Your task to perform on an android device: Open the Play Movies app and select the watchlist tab. Image 0: 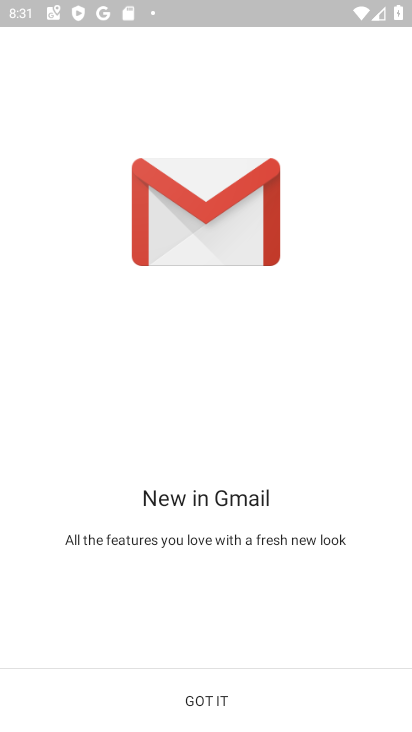
Step 0: press home button
Your task to perform on an android device: Open the Play Movies app and select the watchlist tab. Image 1: 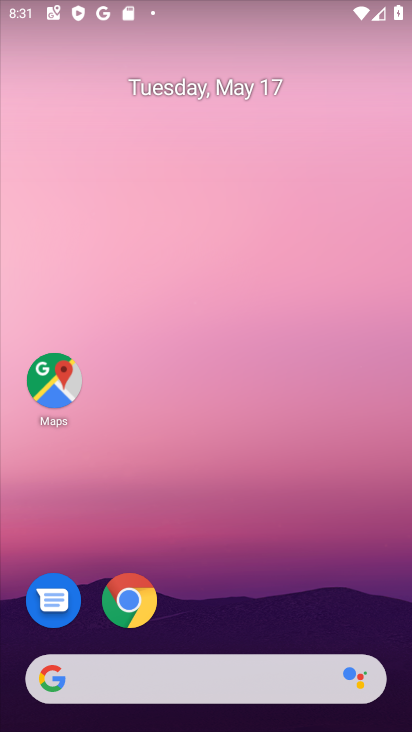
Step 1: drag from (258, 717) to (257, 156)
Your task to perform on an android device: Open the Play Movies app and select the watchlist tab. Image 2: 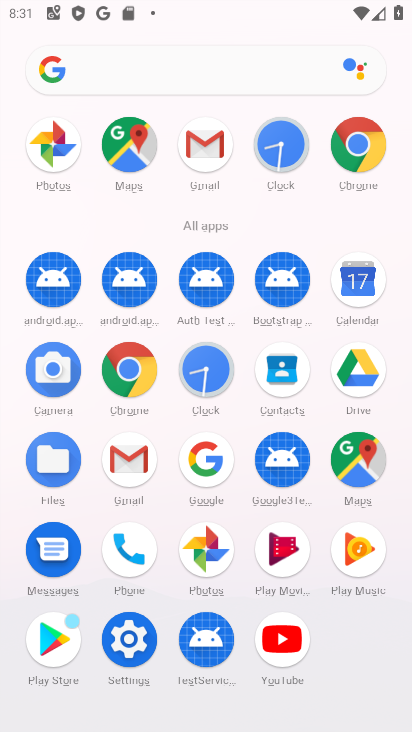
Step 2: click (279, 558)
Your task to perform on an android device: Open the Play Movies app and select the watchlist tab. Image 3: 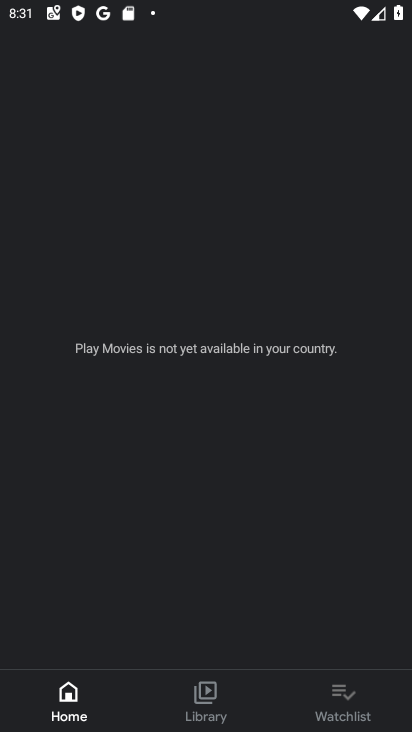
Step 3: click (340, 691)
Your task to perform on an android device: Open the Play Movies app and select the watchlist tab. Image 4: 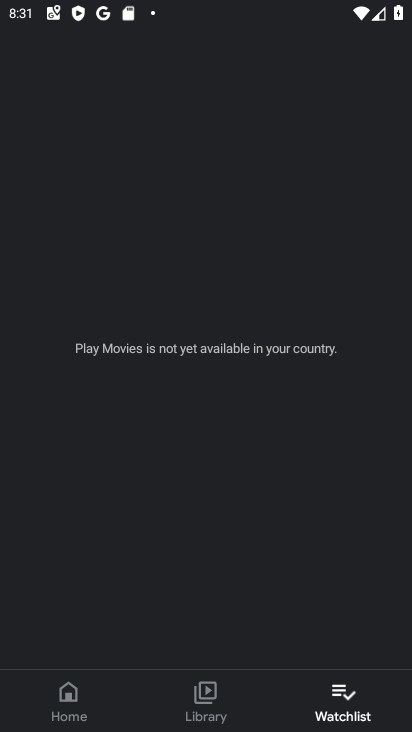
Step 4: task complete